Your task to perform on an android device: Search for sushi restaurants on Maps Image 0: 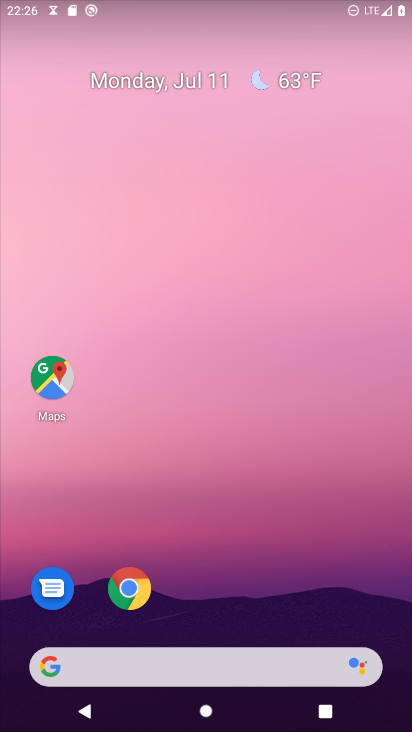
Step 0: click (61, 379)
Your task to perform on an android device: Search for sushi restaurants on Maps Image 1: 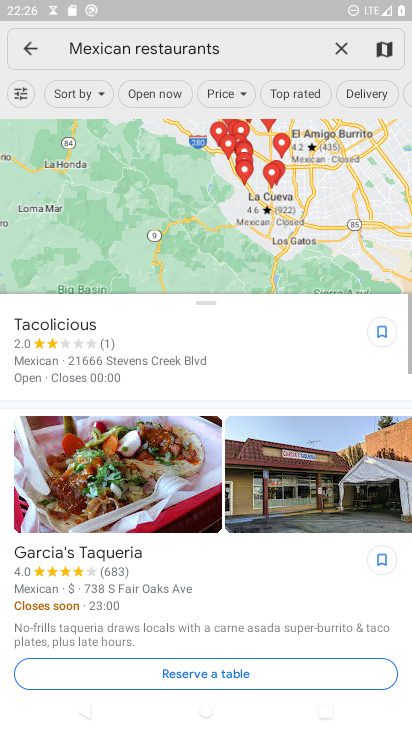
Step 1: click (344, 51)
Your task to perform on an android device: Search for sushi restaurants on Maps Image 2: 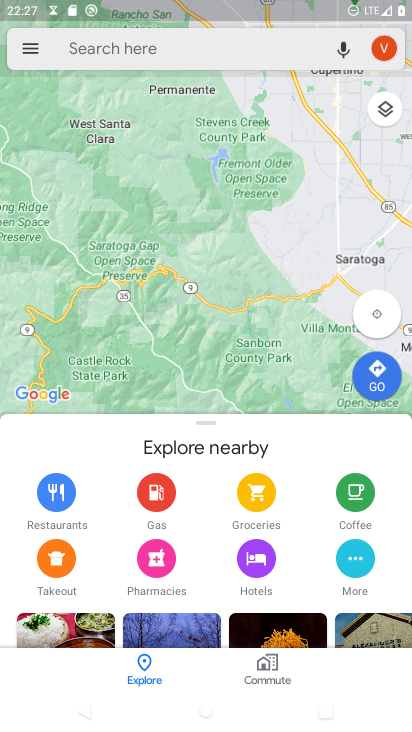
Step 2: type "sushi restaurants "
Your task to perform on an android device: Search for sushi restaurants on Maps Image 3: 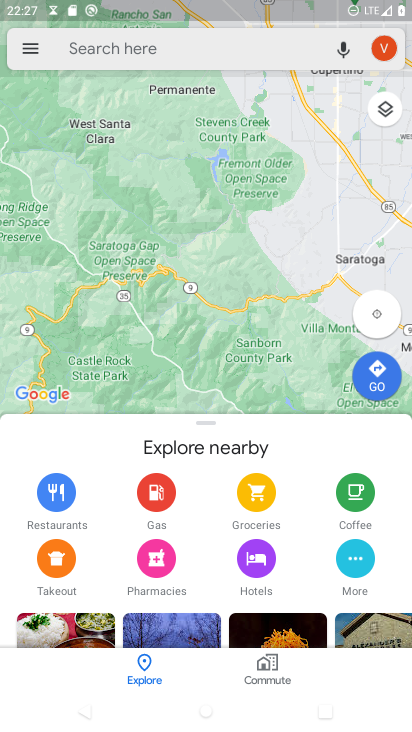
Step 3: click (112, 44)
Your task to perform on an android device: Search for sushi restaurants on Maps Image 4: 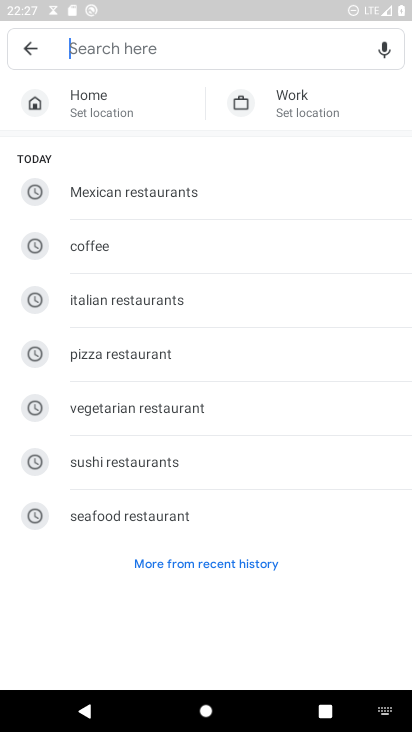
Step 4: click (115, 459)
Your task to perform on an android device: Search for sushi restaurants on Maps Image 5: 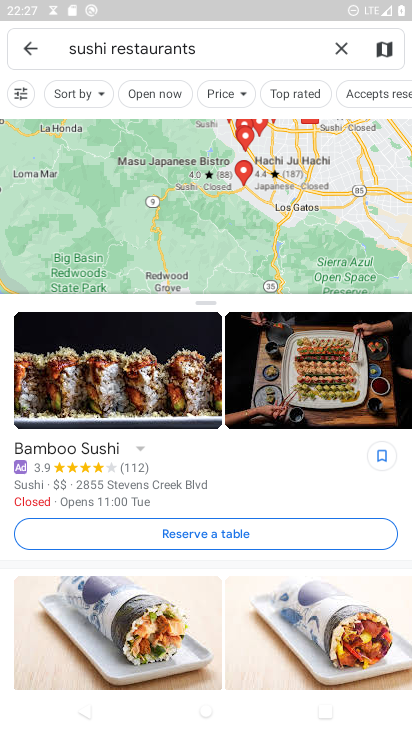
Step 5: task complete